Your task to perform on an android device: open app "Duolingo: language lessons" Image 0: 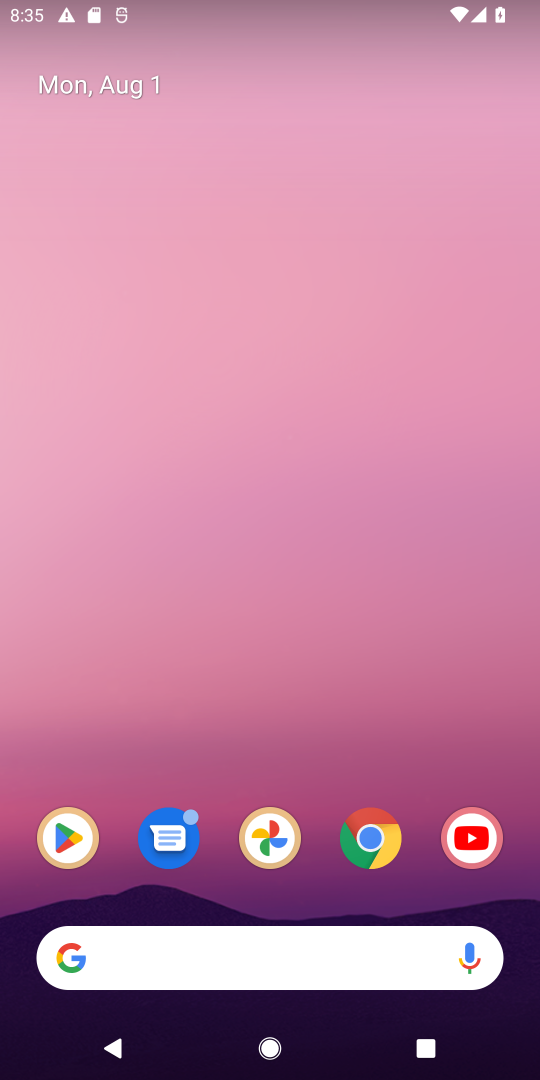
Step 0: drag from (397, 937) to (57, 164)
Your task to perform on an android device: open app "Duolingo: language lessons" Image 1: 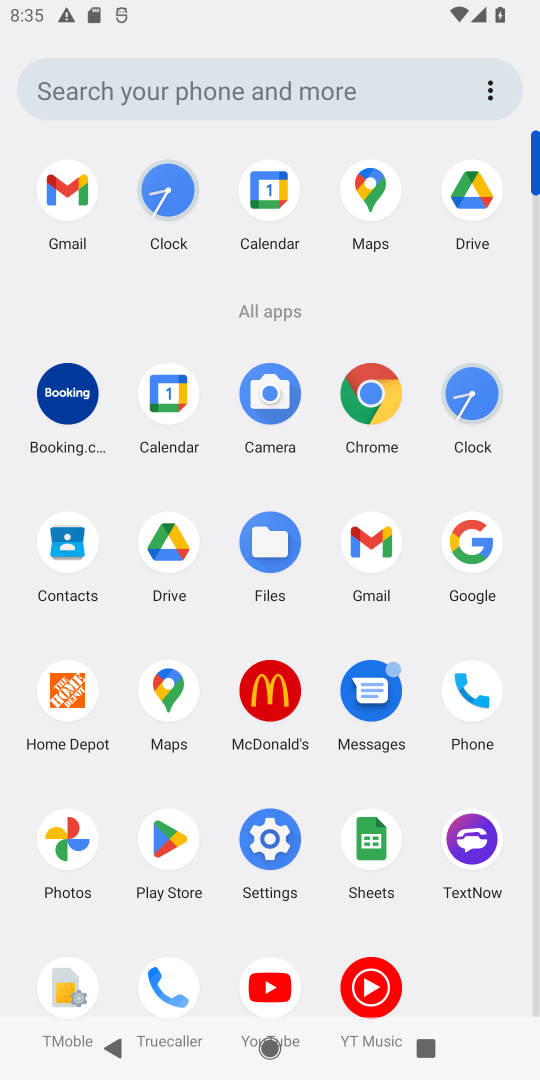
Step 1: click (172, 827)
Your task to perform on an android device: open app "Duolingo: language lessons" Image 2: 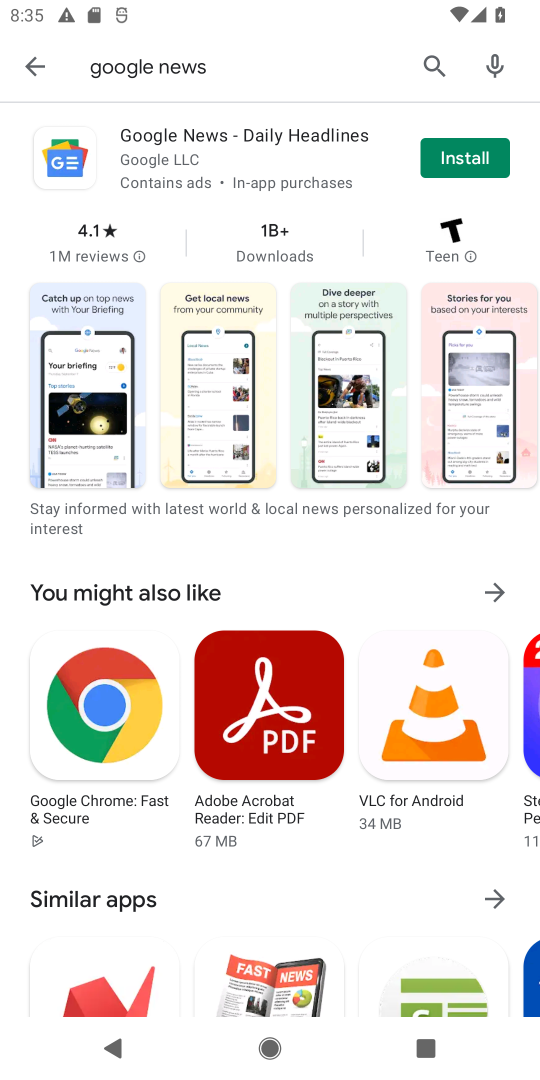
Step 2: click (418, 59)
Your task to perform on an android device: open app "Duolingo: language lessons" Image 3: 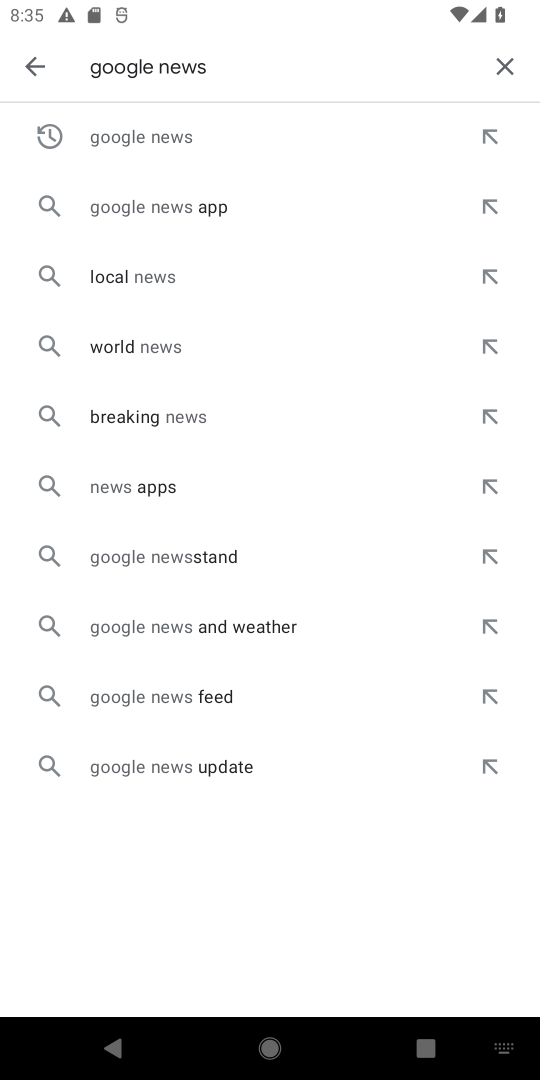
Step 3: click (501, 60)
Your task to perform on an android device: open app "Duolingo: language lessons" Image 4: 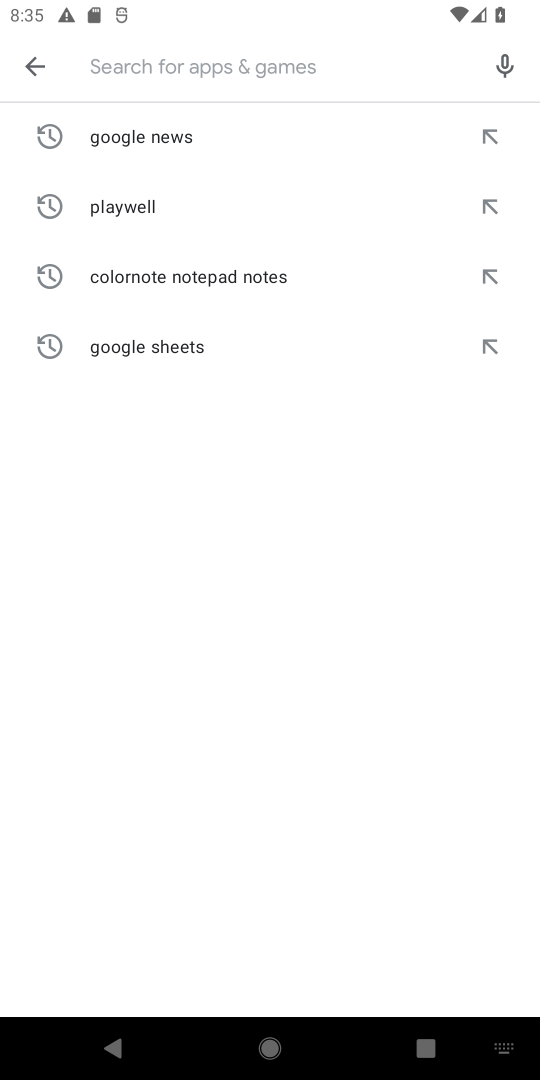
Step 4: type "duolingo"
Your task to perform on an android device: open app "Duolingo: language lessons" Image 5: 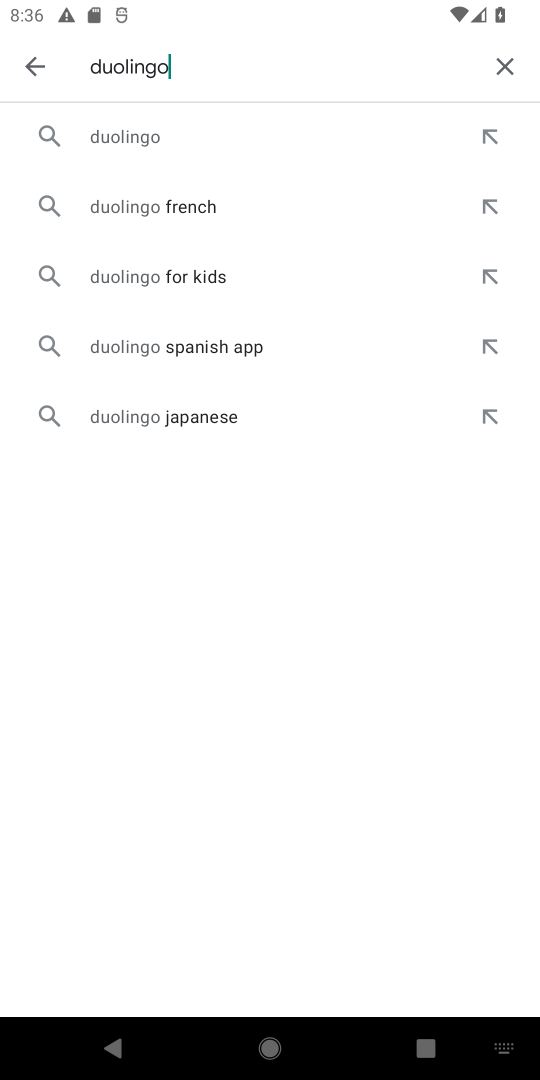
Step 5: click (164, 120)
Your task to perform on an android device: open app "Duolingo: language lessons" Image 6: 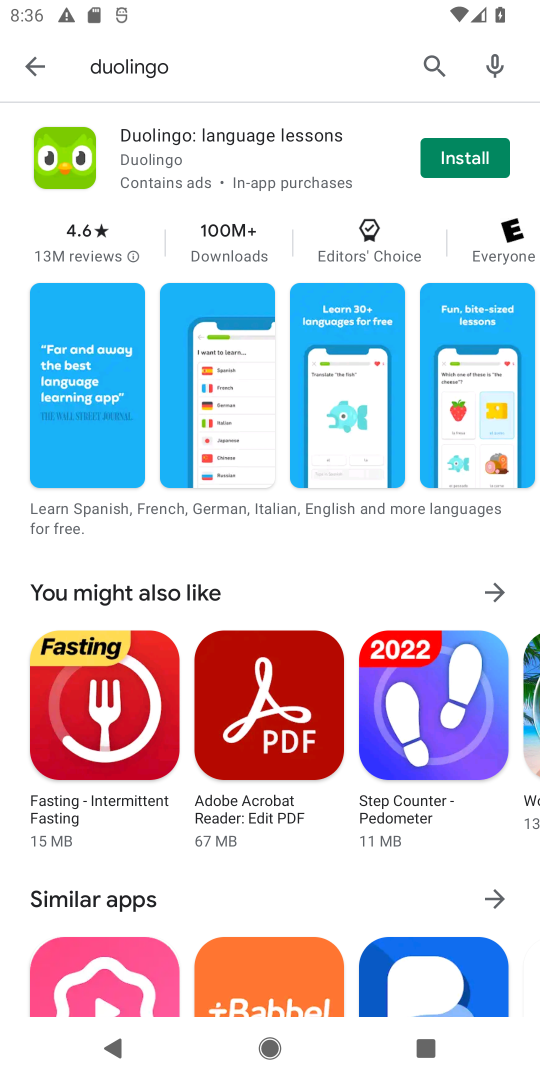
Step 6: task complete